Your task to perform on an android device: open app "File Manager" Image 0: 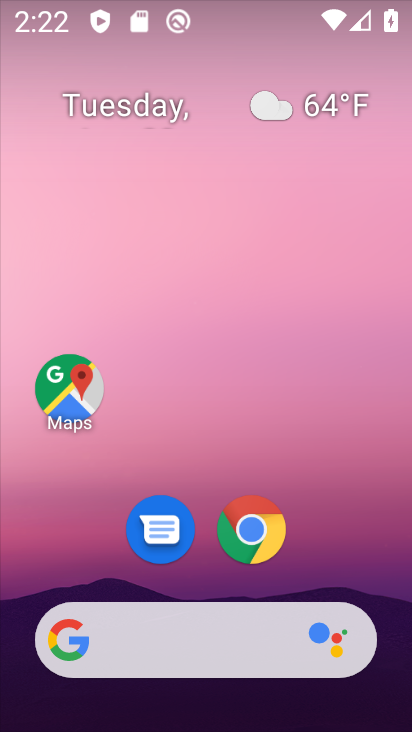
Step 0: drag from (202, 593) to (286, 2)
Your task to perform on an android device: open app "File Manager" Image 1: 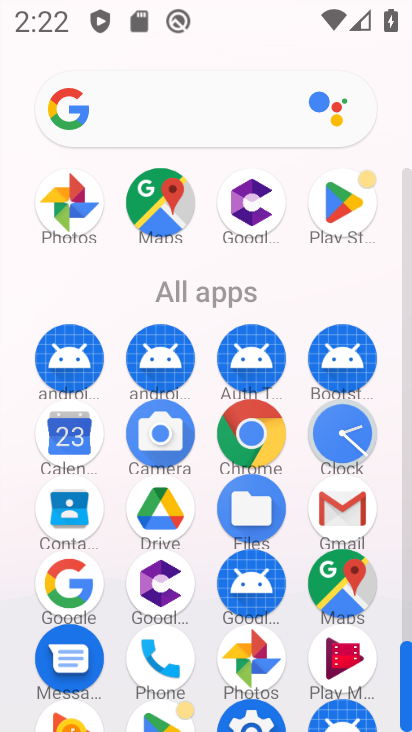
Step 1: click (344, 207)
Your task to perform on an android device: open app "File Manager" Image 2: 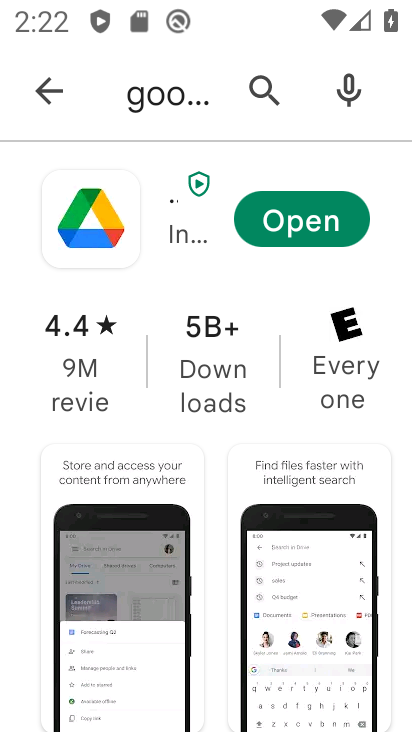
Step 2: click (192, 89)
Your task to perform on an android device: open app "File Manager" Image 3: 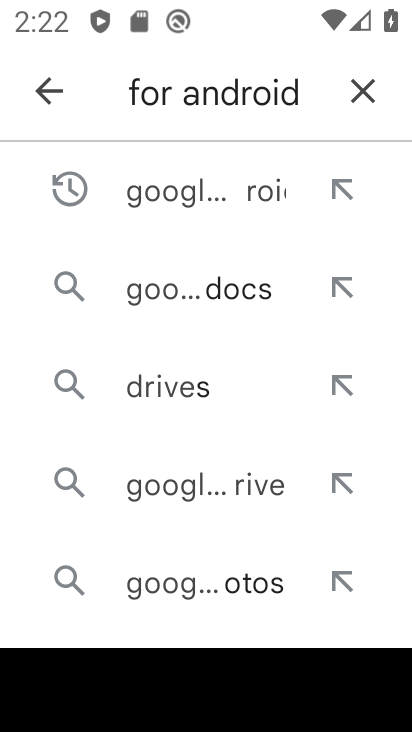
Step 3: click (363, 86)
Your task to perform on an android device: open app "File Manager" Image 4: 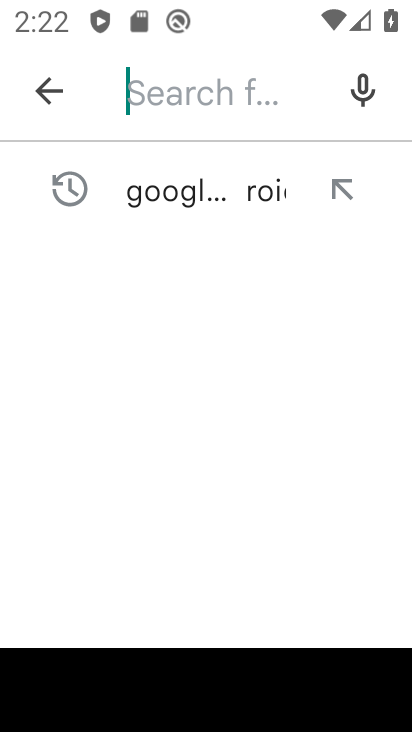
Step 4: type "file manager"
Your task to perform on an android device: open app "File Manager" Image 5: 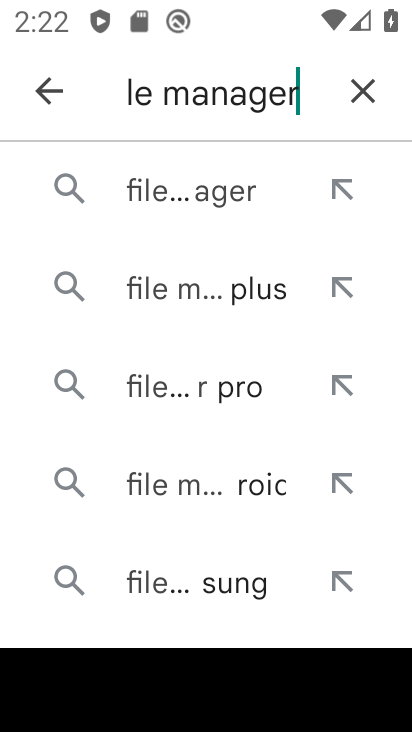
Step 5: click (220, 195)
Your task to perform on an android device: open app "File Manager" Image 6: 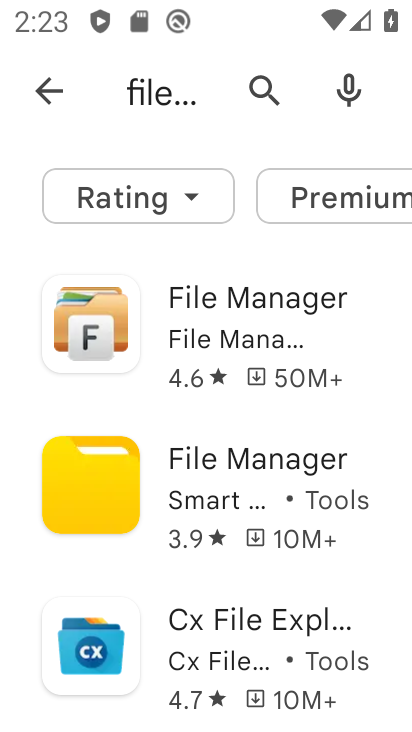
Step 6: click (243, 348)
Your task to perform on an android device: open app "File Manager" Image 7: 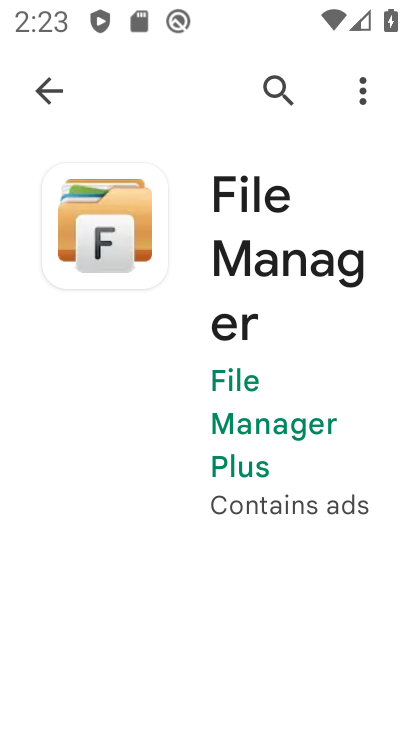
Step 7: task complete